Your task to perform on an android device: Open Google Chrome Image 0: 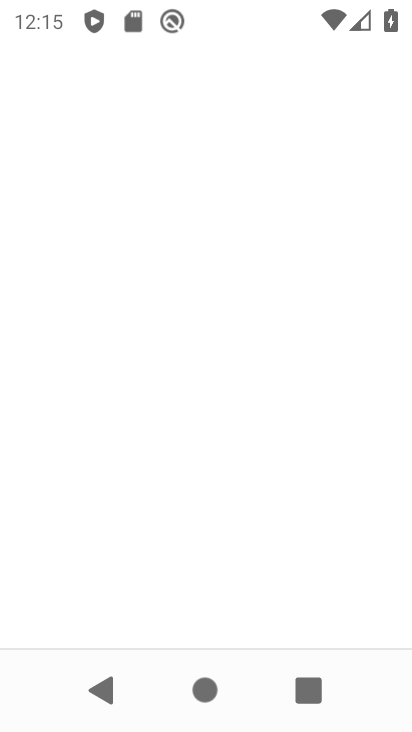
Step 0: drag from (393, 513) to (338, 162)
Your task to perform on an android device: Open Google Chrome Image 1: 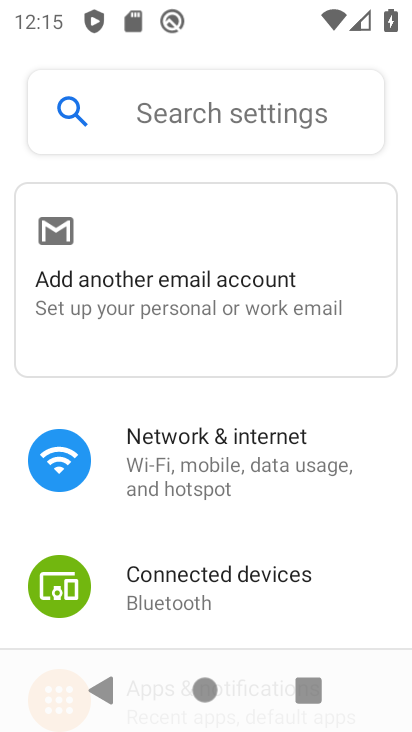
Step 1: press home button
Your task to perform on an android device: Open Google Chrome Image 2: 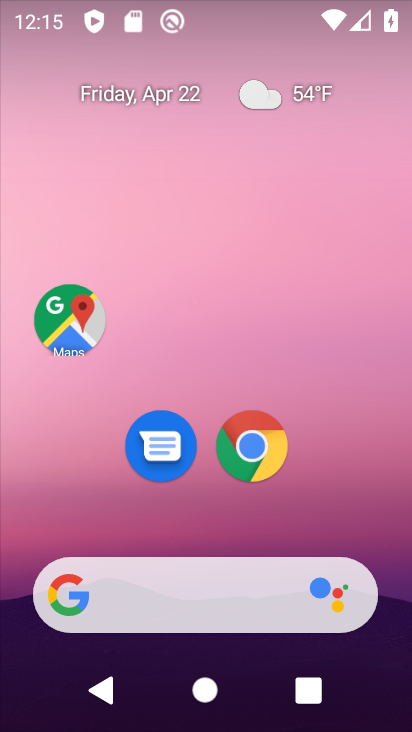
Step 2: click (264, 435)
Your task to perform on an android device: Open Google Chrome Image 3: 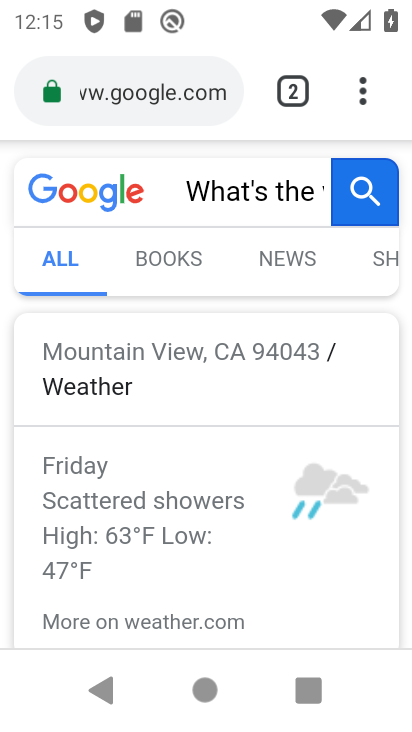
Step 3: task complete